Your task to perform on an android device: turn off notifications settings in the gmail app Image 0: 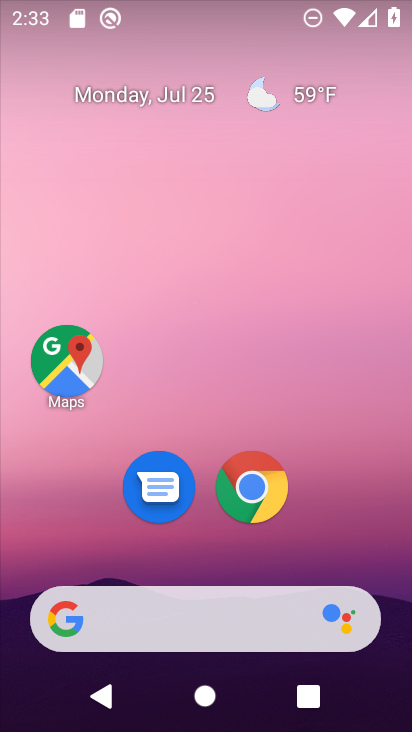
Step 0: drag from (134, 558) to (312, 3)
Your task to perform on an android device: turn off notifications settings in the gmail app Image 1: 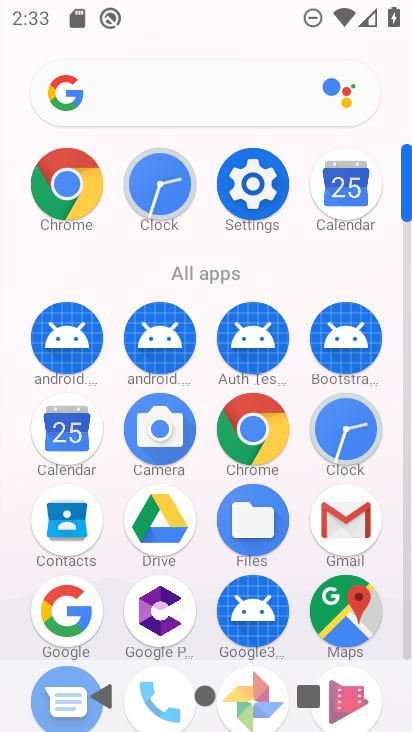
Step 1: click (349, 518)
Your task to perform on an android device: turn off notifications settings in the gmail app Image 2: 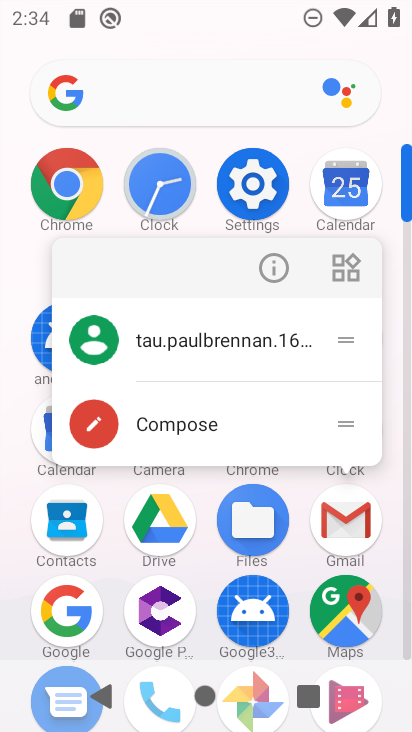
Step 2: click (280, 264)
Your task to perform on an android device: turn off notifications settings in the gmail app Image 3: 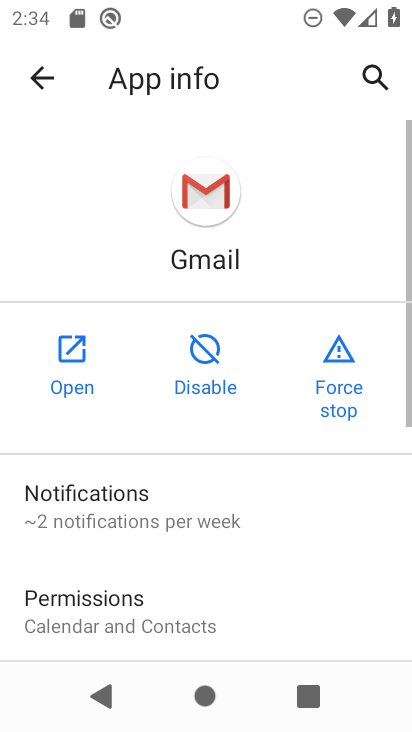
Step 3: click (95, 487)
Your task to perform on an android device: turn off notifications settings in the gmail app Image 4: 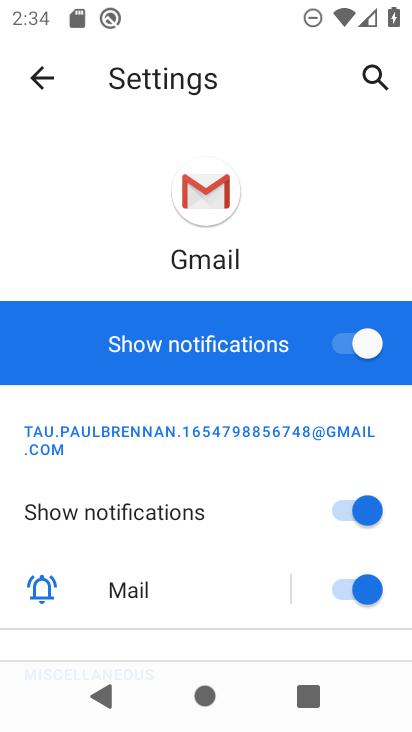
Step 4: click (376, 338)
Your task to perform on an android device: turn off notifications settings in the gmail app Image 5: 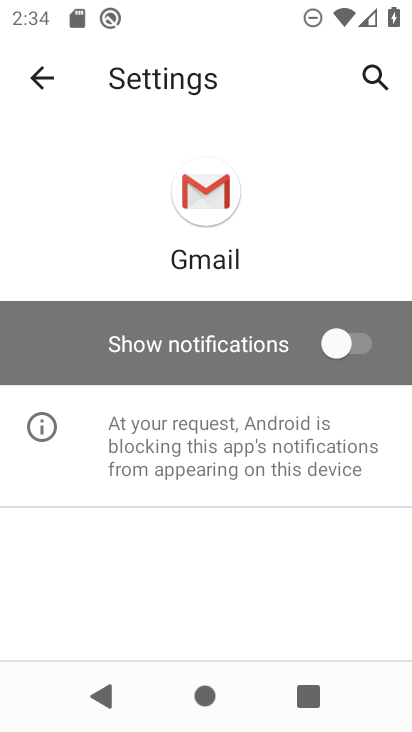
Step 5: task complete